Your task to perform on an android device: check android version Image 0: 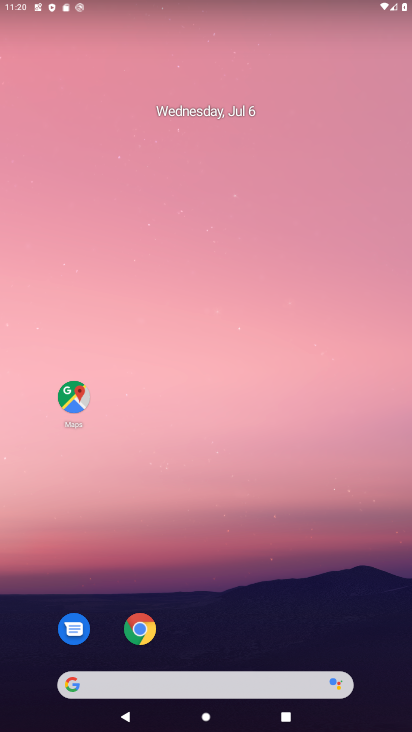
Step 0: drag from (271, 630) to (256, 43)
Your task to perform on an android device: check android version Image 1: 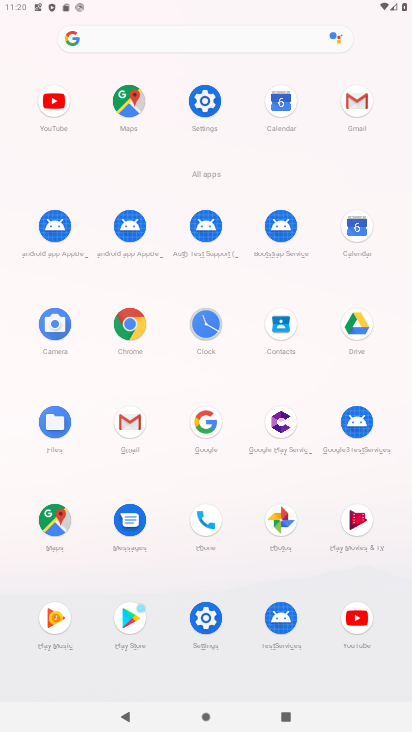
Step 1: click (202, 101)
Your task to perform on an android device: check android version Image 2: 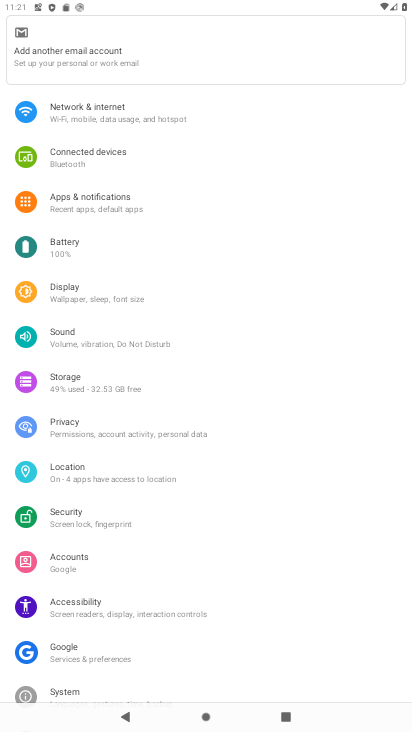
Step 2: drag from (92, 453) to (174, 318)
Your task to perform on an android device: check android version Image 3: 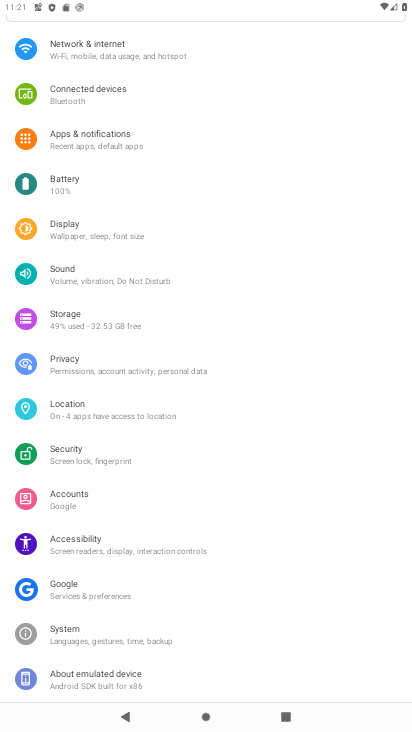
Step 3: click (70, 676)
Your task to perform on an android device: check android version Image 4: 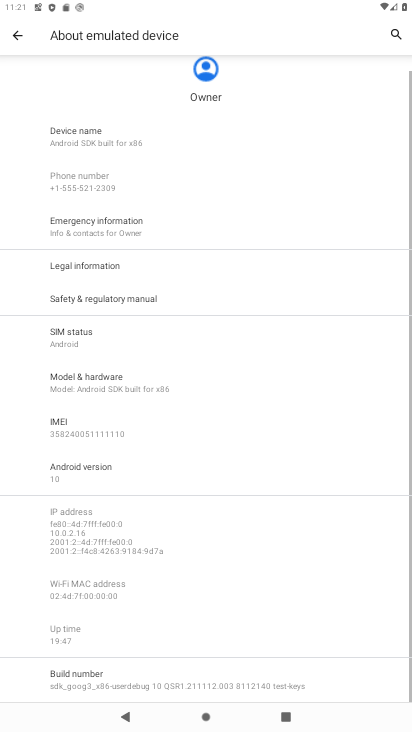
Step 4: click (90, 467)
Your task to perform on an android device: check android version Image 5: 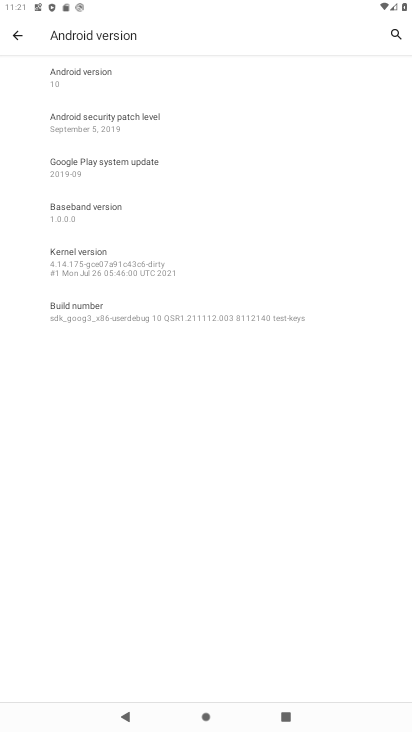
Step 5: task complete